Your task to perform on an android device: open app "Pinterest" (install if not already installed), go to login, and select forgot password Image 0: 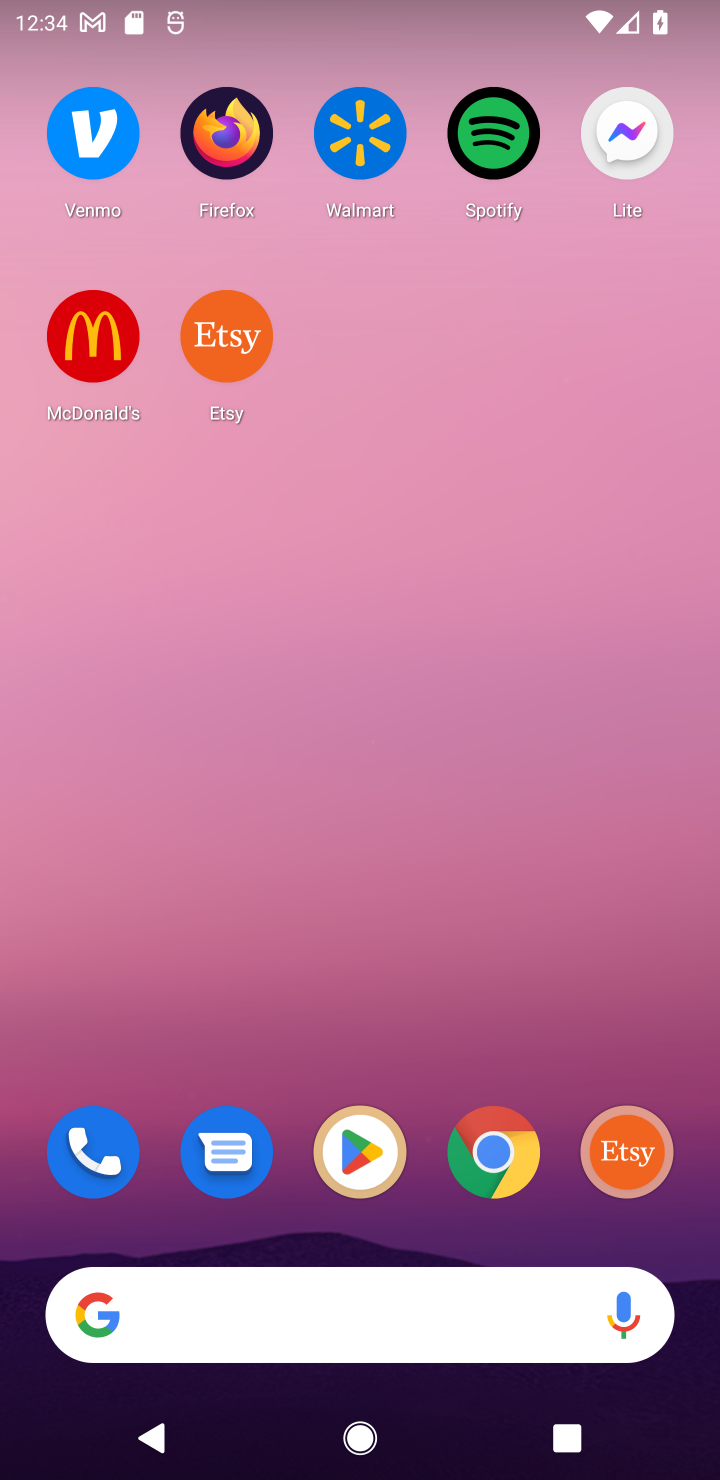
Step 0: click (352, 1169)
Your task to perform on an android device: open app "Pinterest" (install if not already installed), go to login, and select forgot password Image 1: 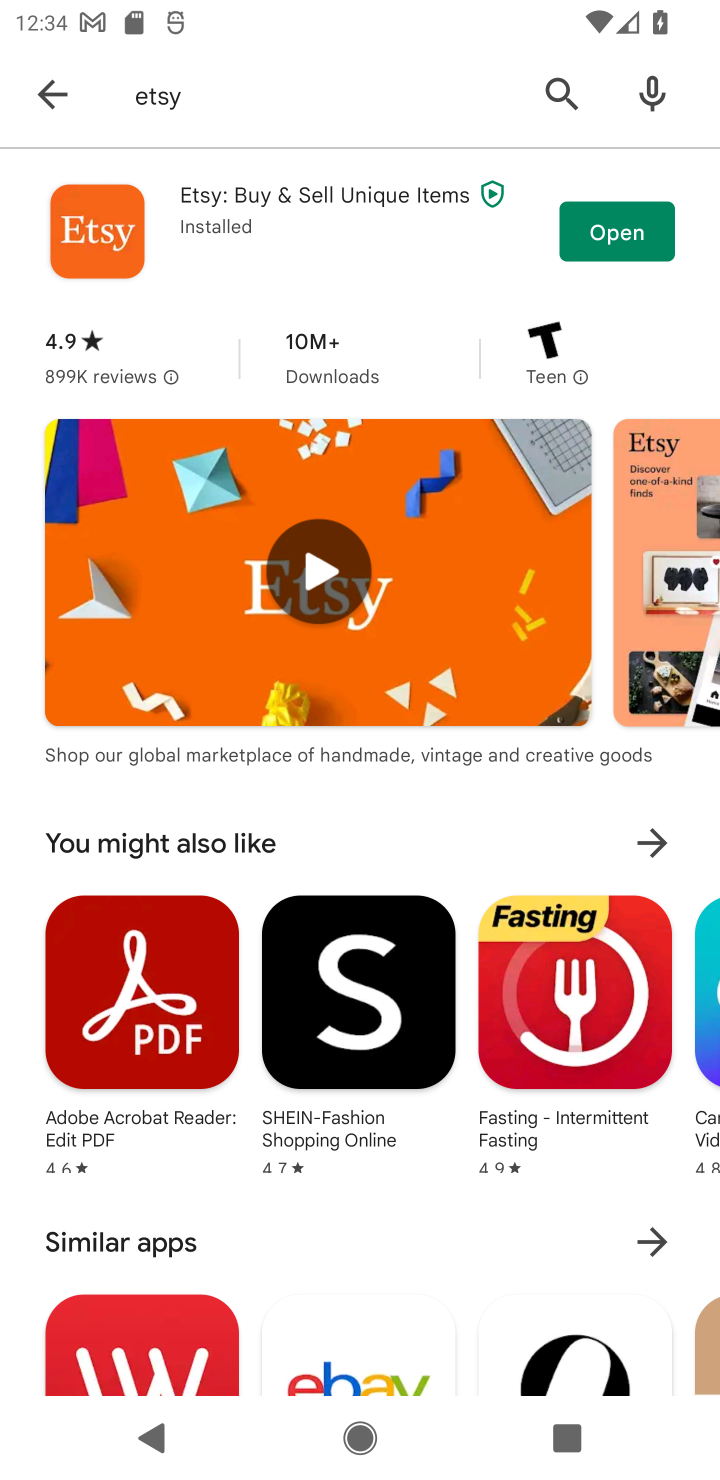
Step 1: click (53, 96)
Your task to perform on an android device: open app "Pinterest" (install if not already installed), go to login, and select forgot password Image 2: 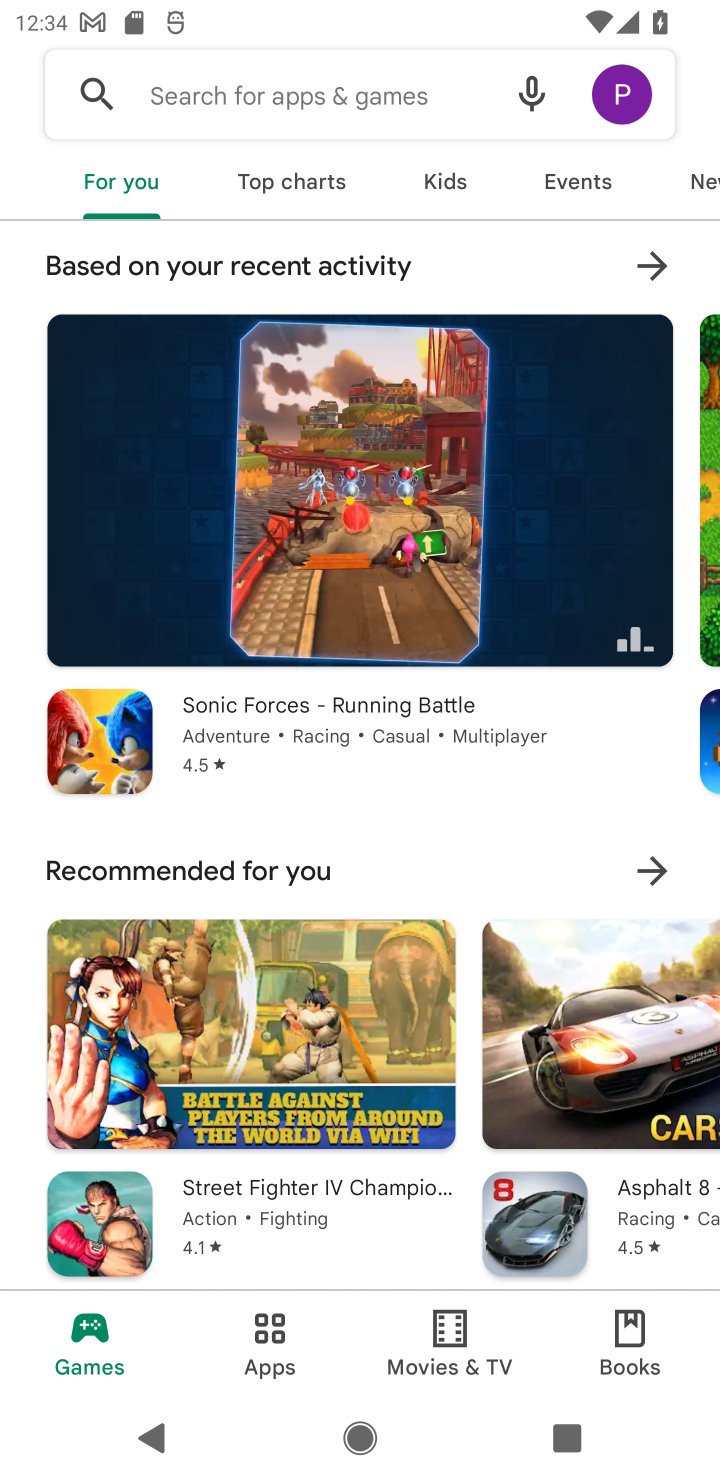
Step 2: click (244, 57)
Your task to perform on an android device: open app "Pinterest" (install if not already installed), go to login, and select forgot password Image 3: 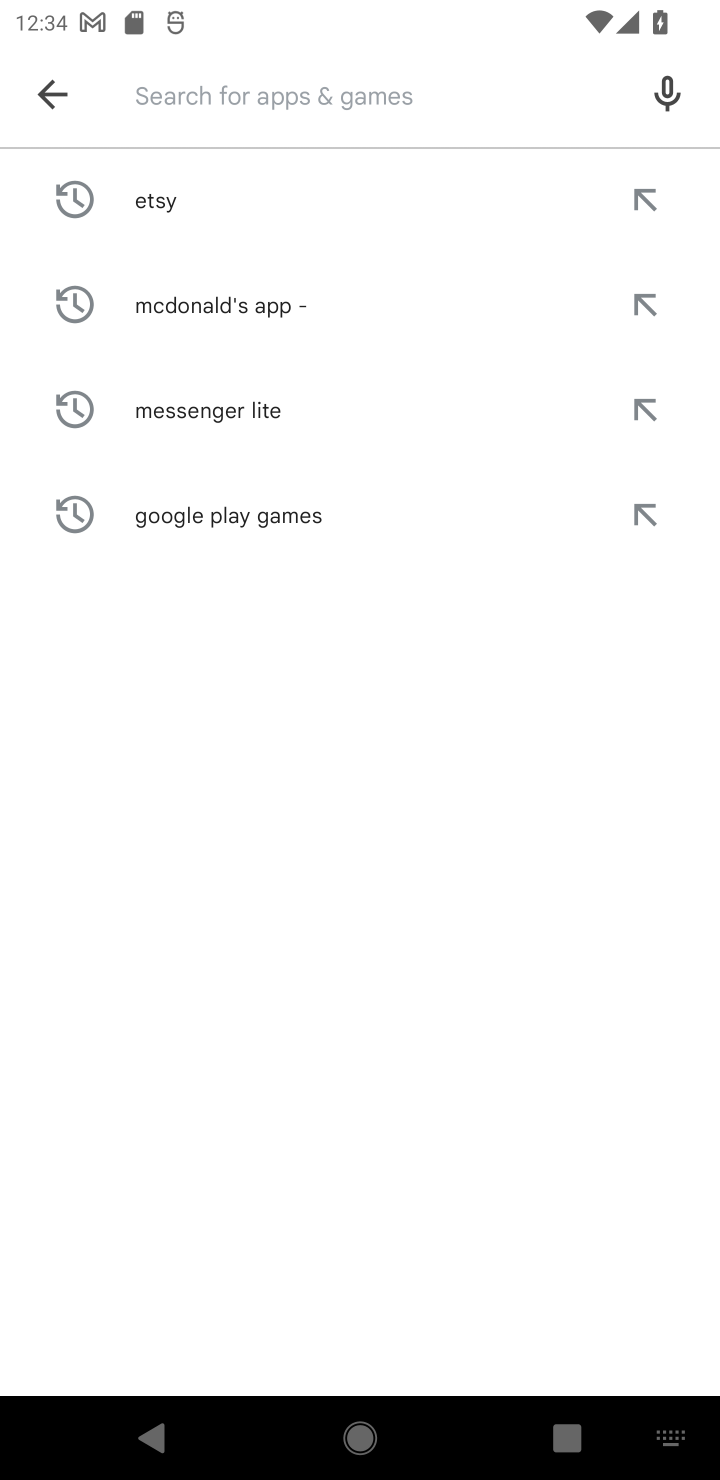
Step 3: type "Pinterest"
Your task to perform on an android device: open app "Pinterest" (install if not already installed), go to login, and select forgot password Image 4: 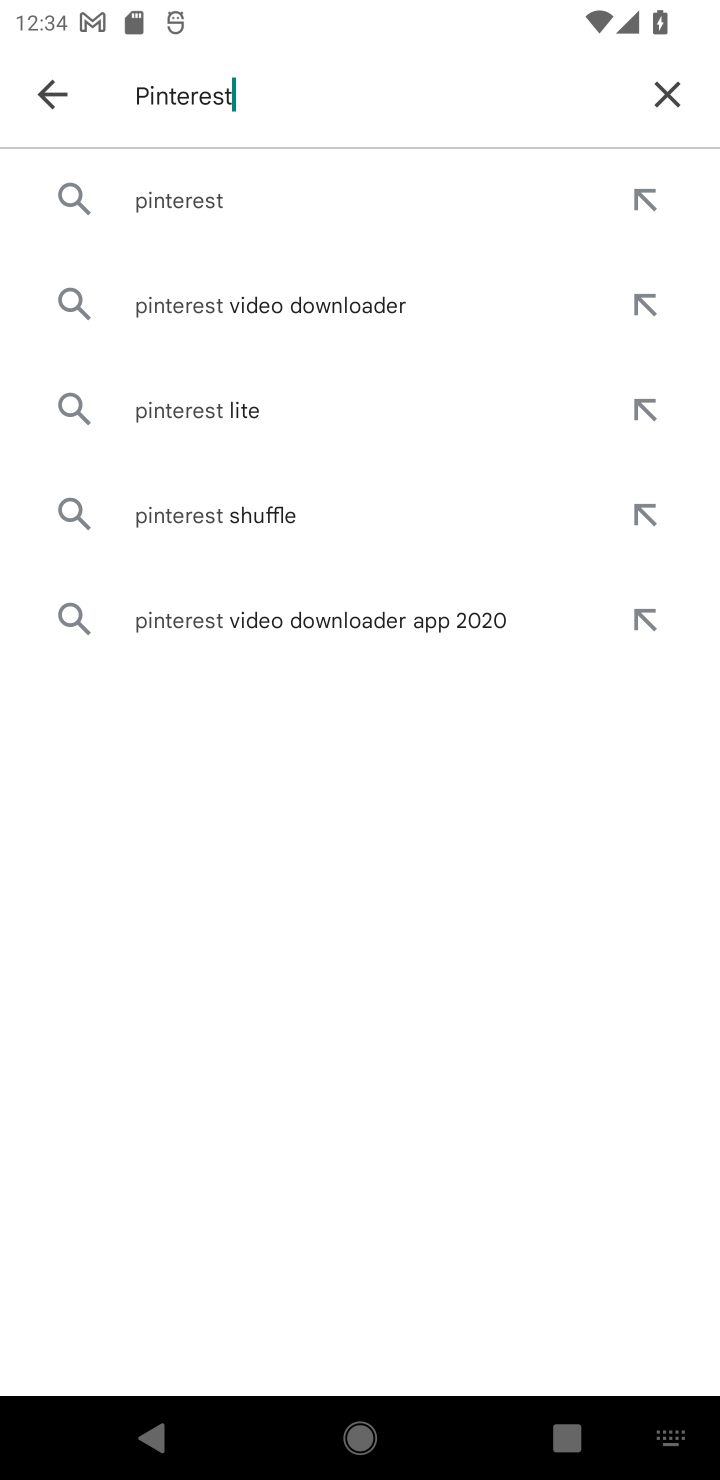
Step 4: click (183, 196)
Your task to perform on an android device: open app "Pinterest" (install if not already installed), go to login, and select forgot password Image 5: 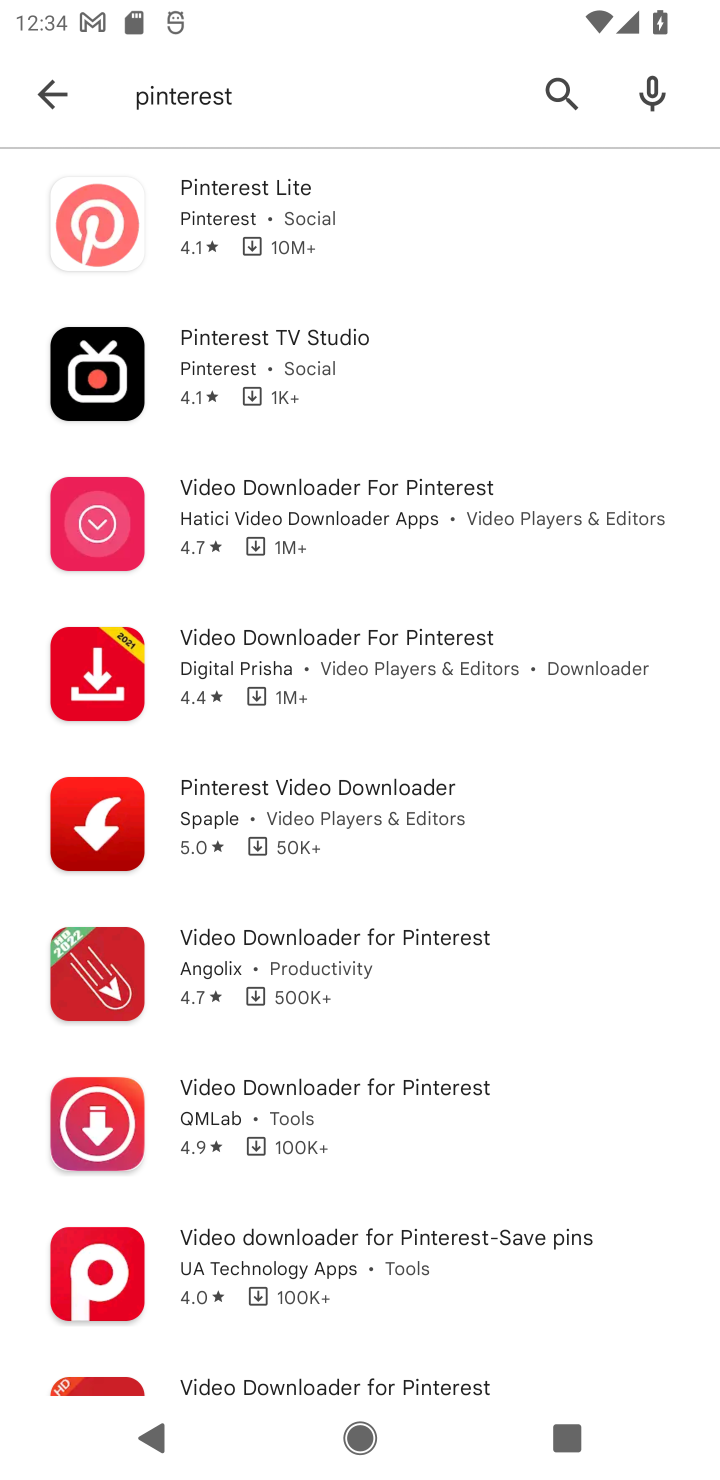
Step 5: click (293, 214)
Your task to perform on an android device: open app "Pinterest" (install if not already installed), go to login, and select forgot password Image 6: 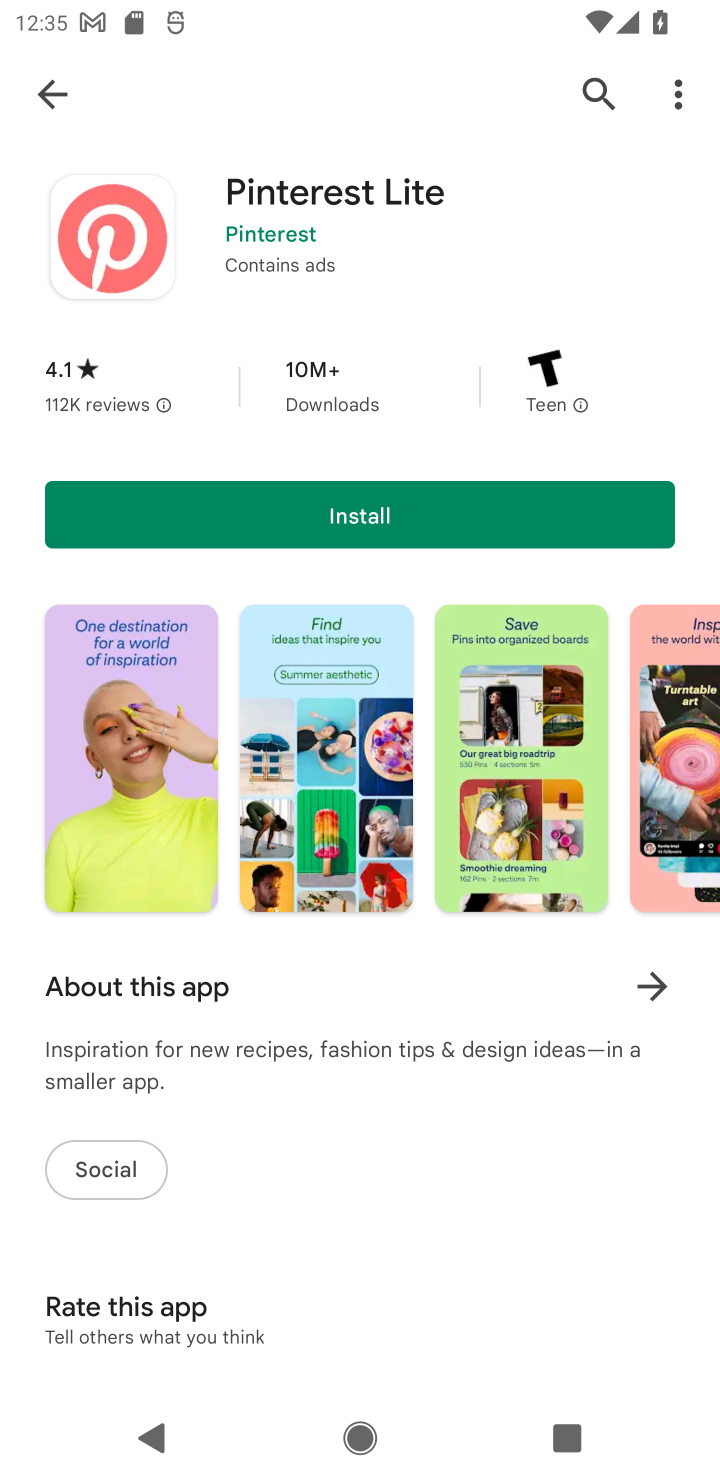
Step 6: click (346, 518)
Your task to perform on an android device: open app "Pinterest" (install if not already installed), go to login, and select forgot password Image 7: 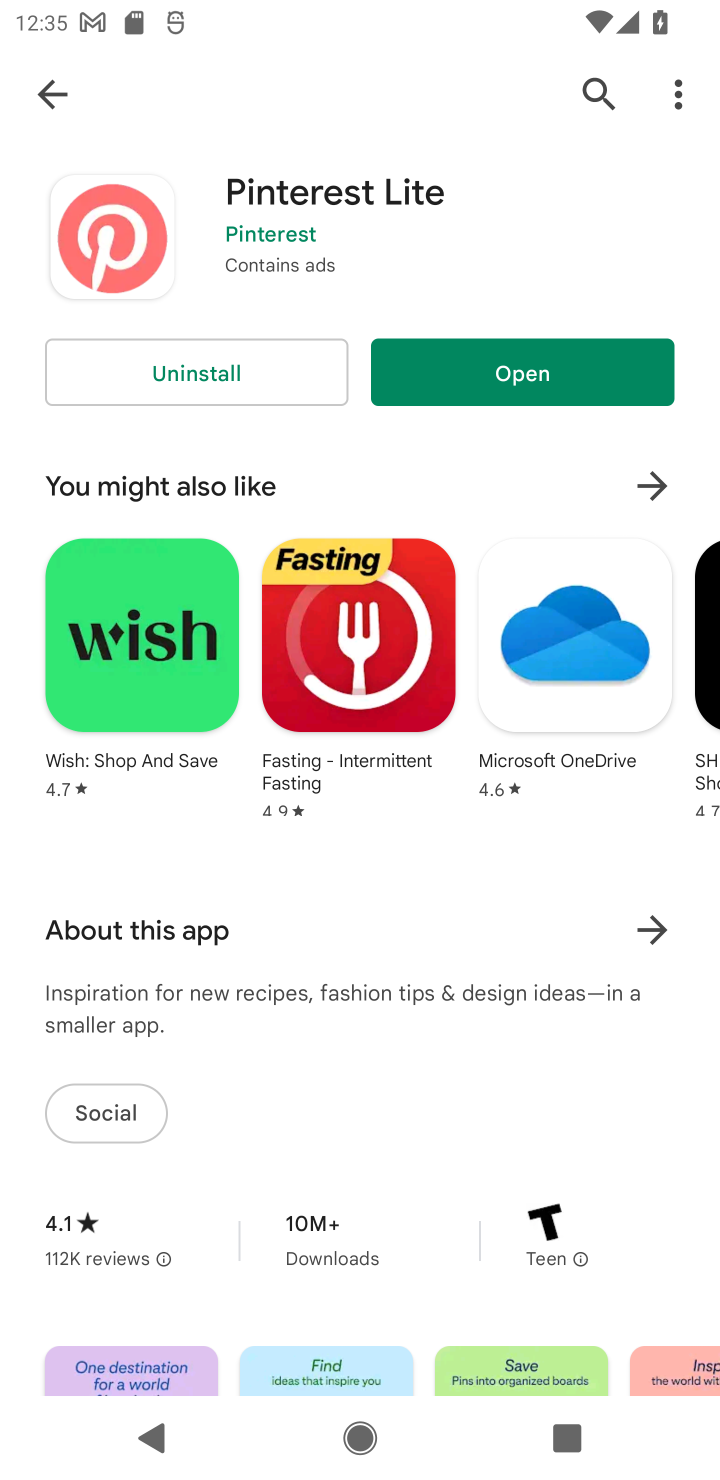
Step 7: click (524, 362)
Your task to perform on an android device: open app "Pinterest" (install if not already installed), go to login, and select forgot password Image 8: 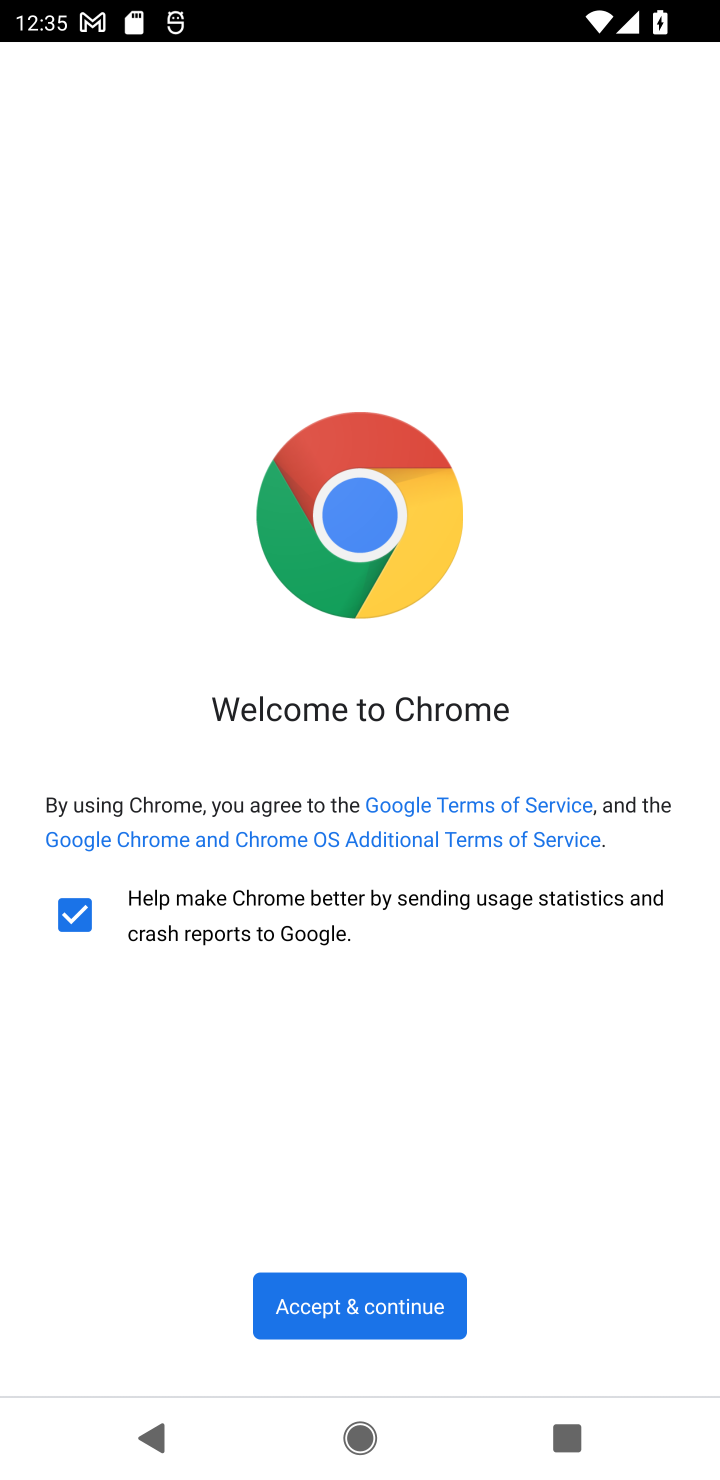
Step 8: click (347, 1303)
Your task to perform on an android device: open app "Pinterest" (install if not already installed), go to login, and select forgot password Image 9: 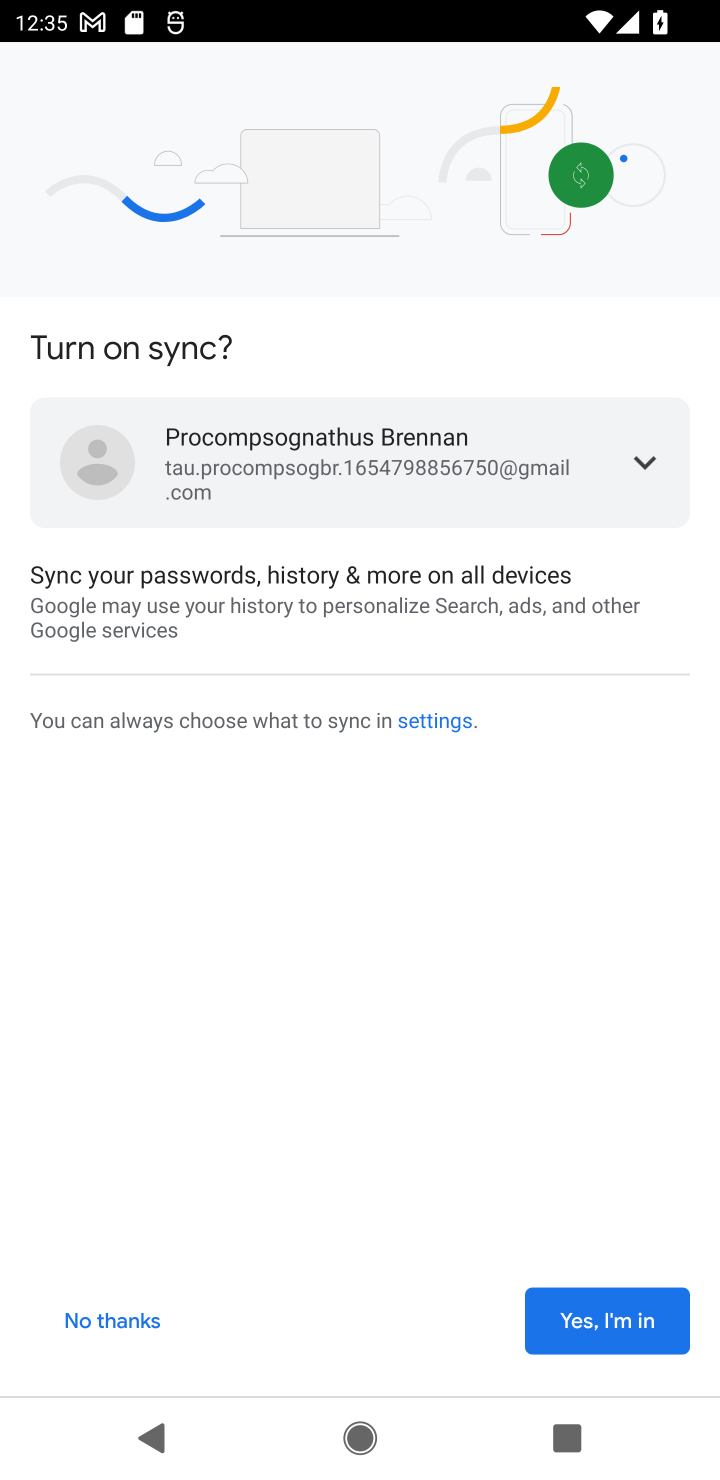
Step 9: click (599, 1321)
Your task to perform on an android device: open app "Pinterest" (install if not already installed), go to login, and select forgot password Image 10: 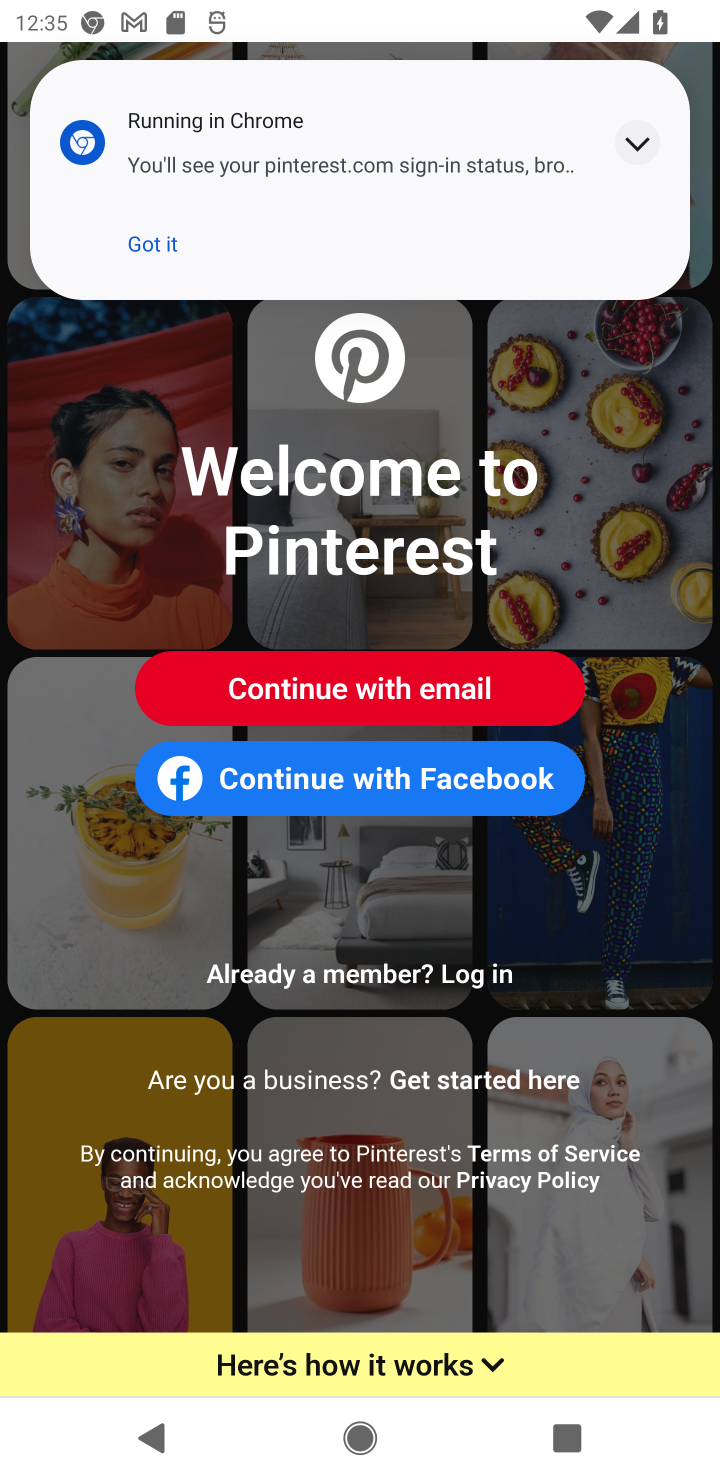
Step 10: click (160, 243)
Your task to perform on an android device: open app "Pinterest" (install if not already installed), go to login, and select forgot password Image 11: 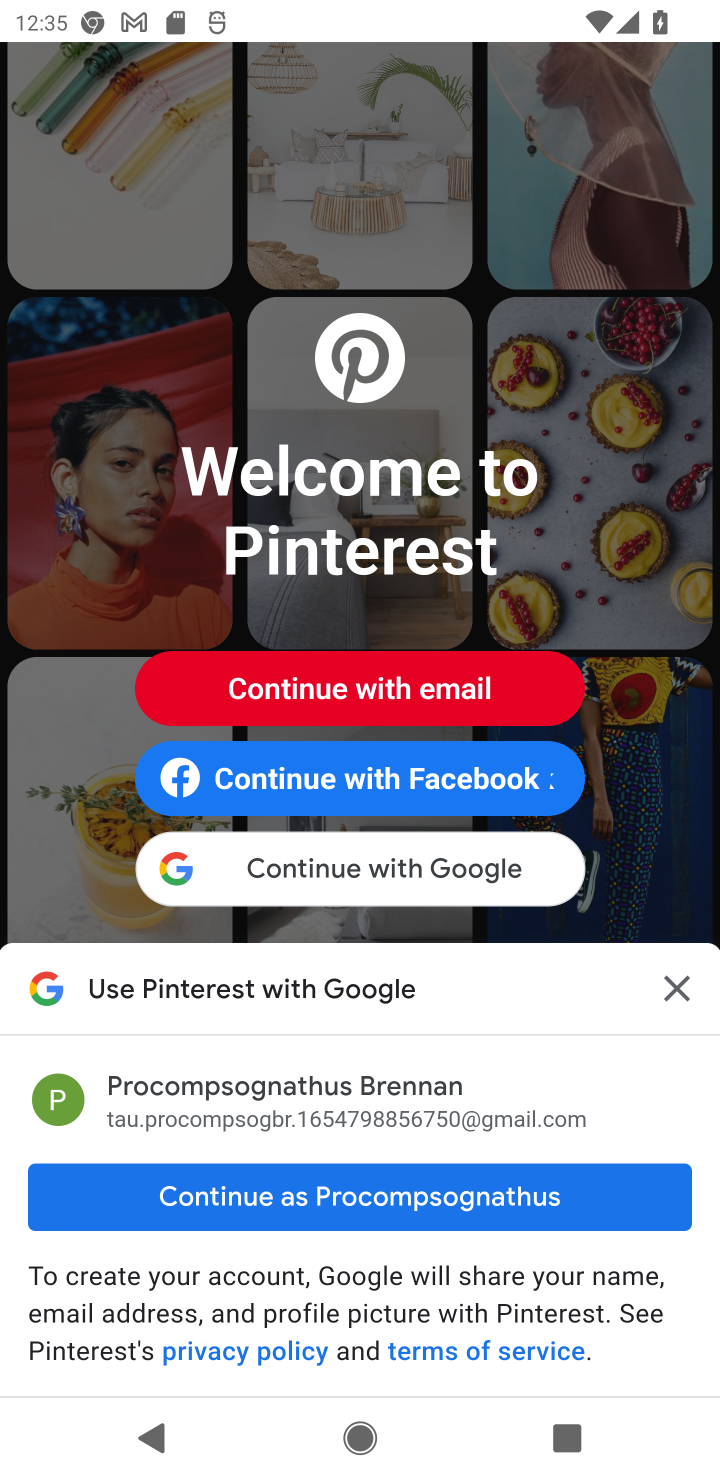
Step 11: click (674, 992)
Your task to perform on an android device: open app "Pinterest" (install if not already installed), go to login, and select forgot password Image 12: 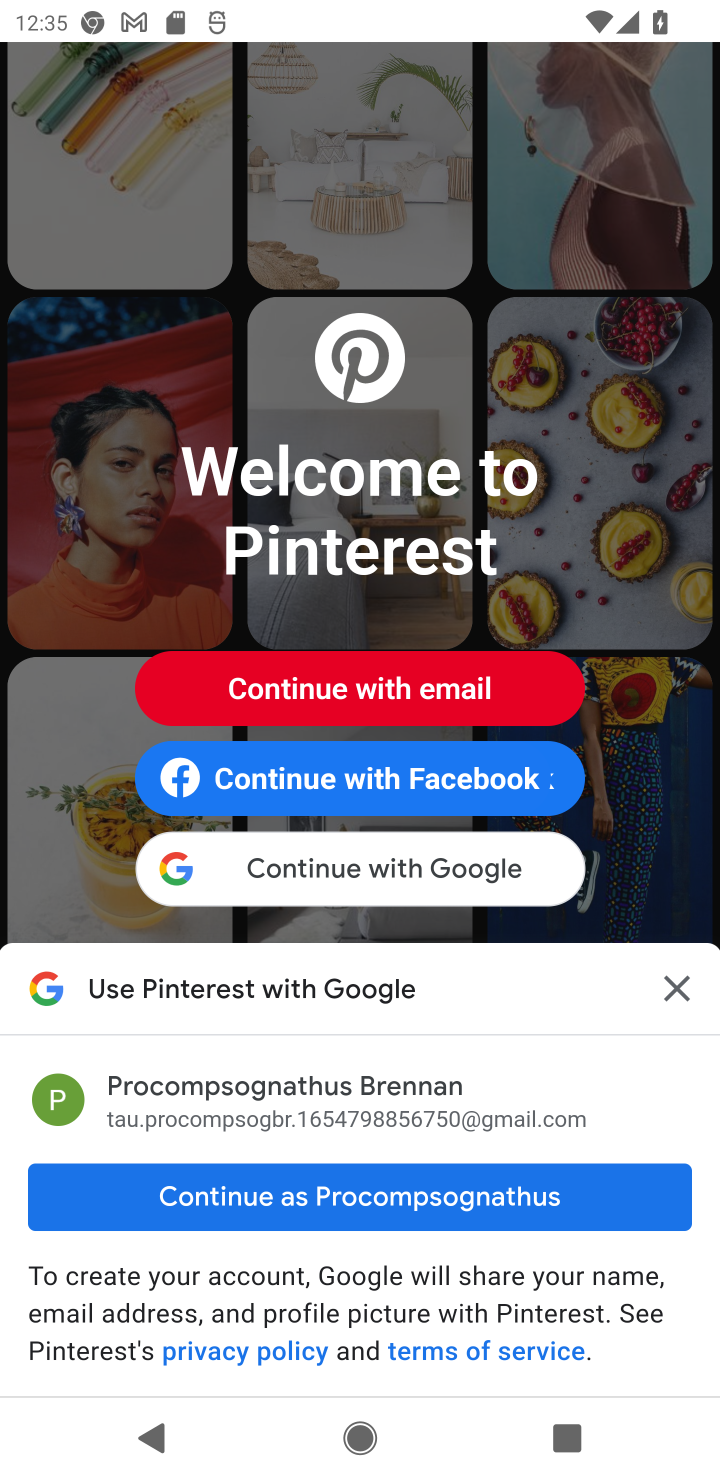
Step 12: click (674, 992)
Your task to perform on an android device: open app "Pinterest" (install if not already installed), go to login, and select forgot password Image 13: 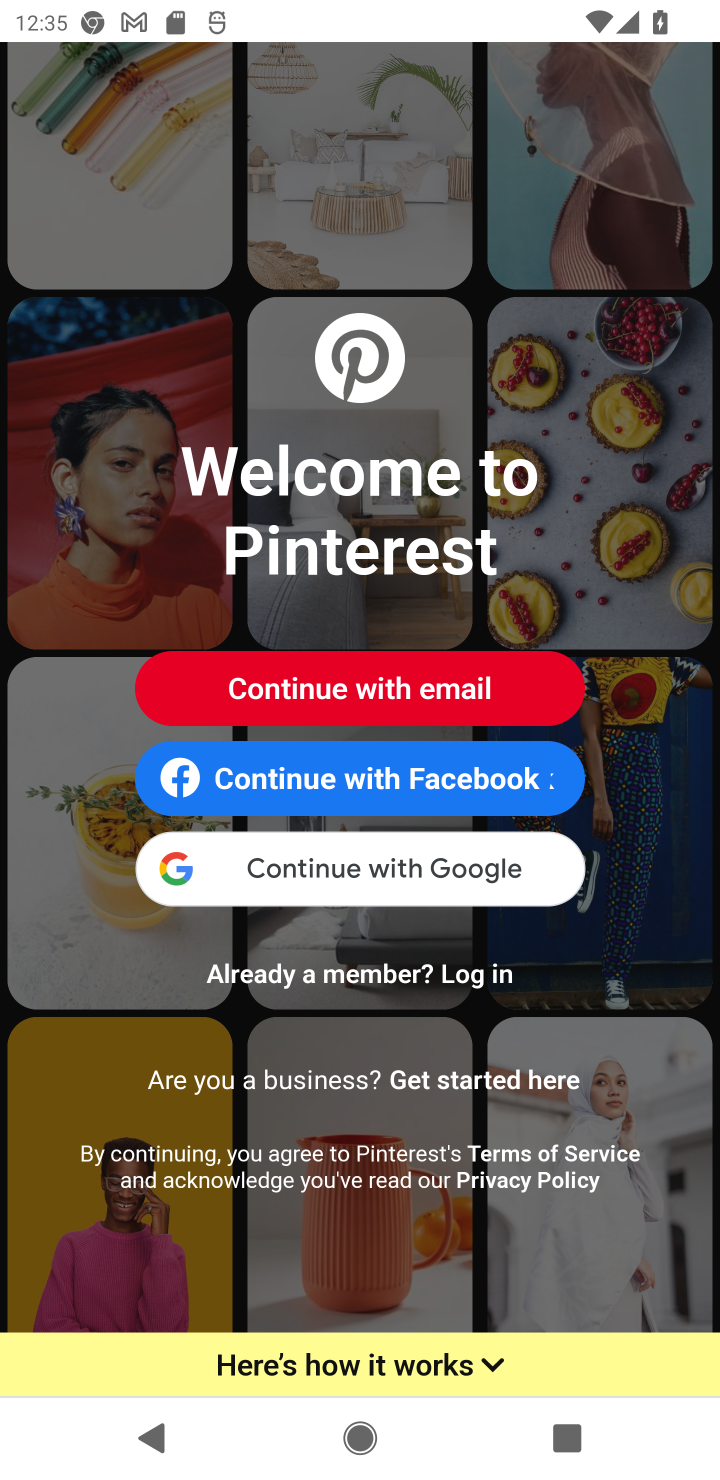
Step 13: click (489, 991)
Your task to perform on an android device: open app "Pinterest" (install if not already installed), go to login, and select forgot password Image 14: 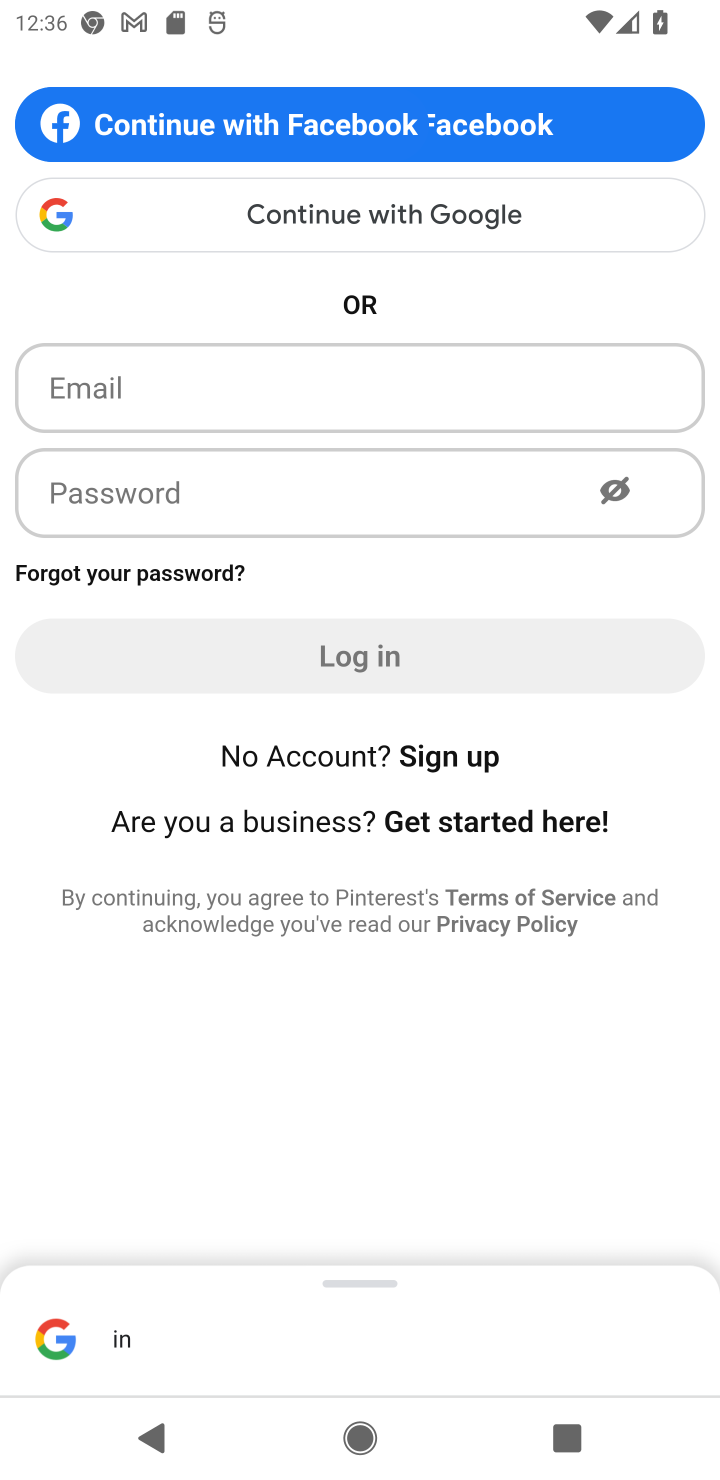
Step 14: click (117, 574)
Your task to perform on an android device: open app "Pinterest" (install if not already installed), go to login, and select forgot password Image 15: 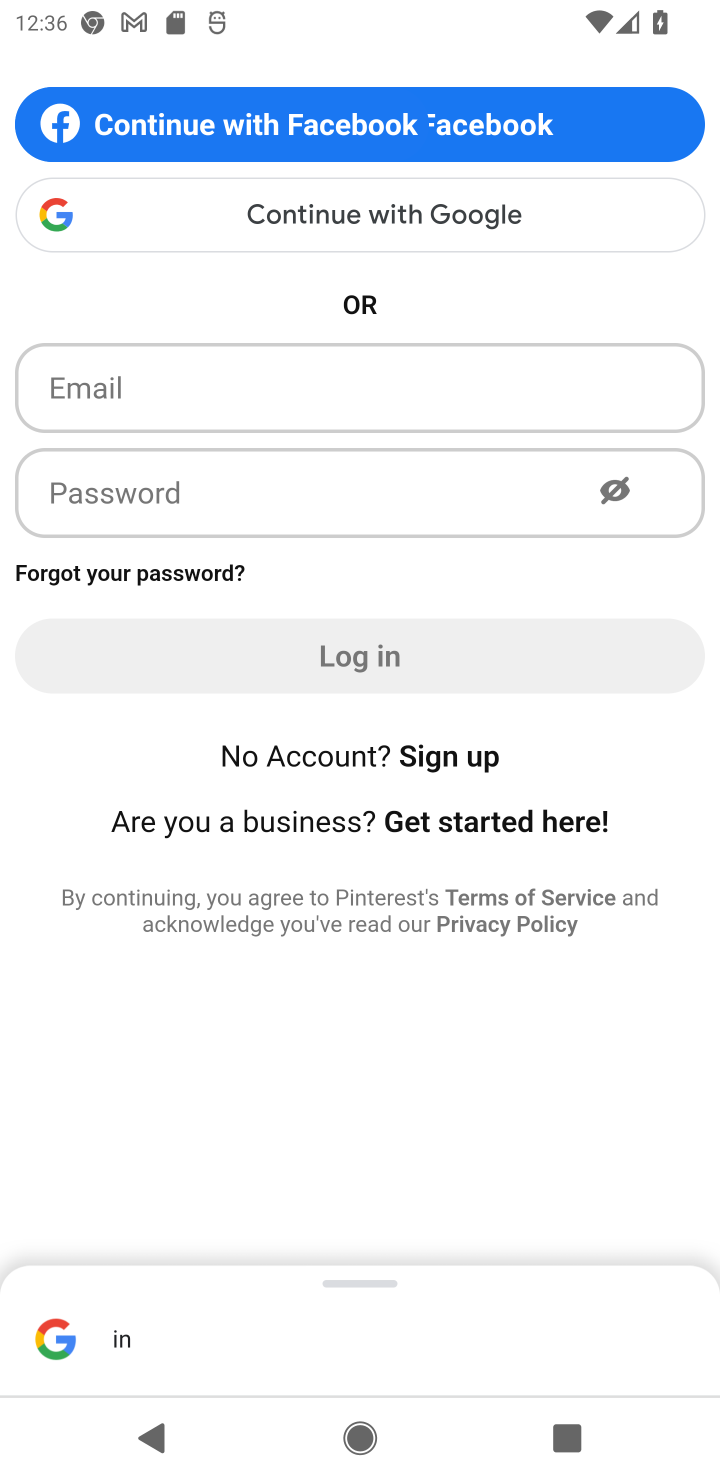
Step 15: click (117, 574)
Your task to perform on an android device: open app "Pinterest" (install if not already installed), go to login, and select forgot password Image 16: 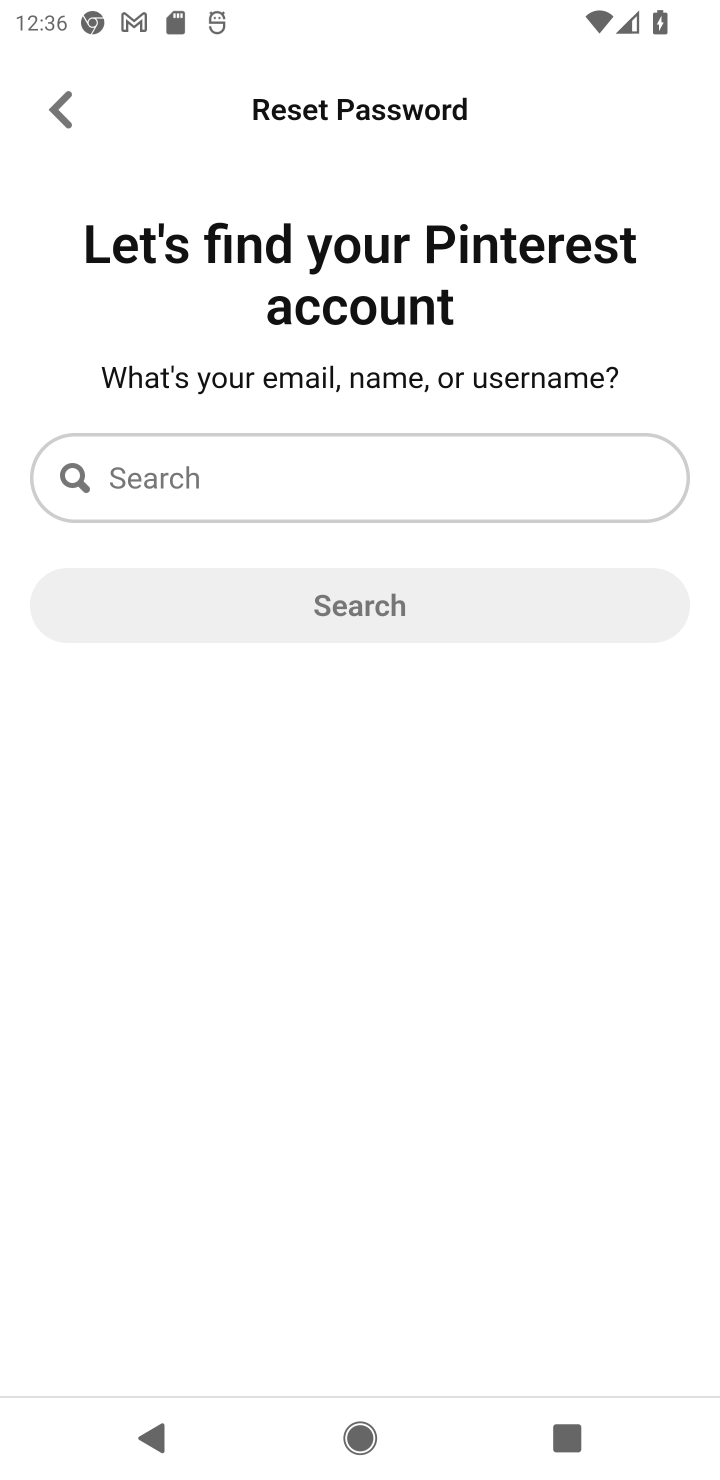
Step 16: task complete